Your task to perform on an android device: Is it going to rain this weekend? Image 0: 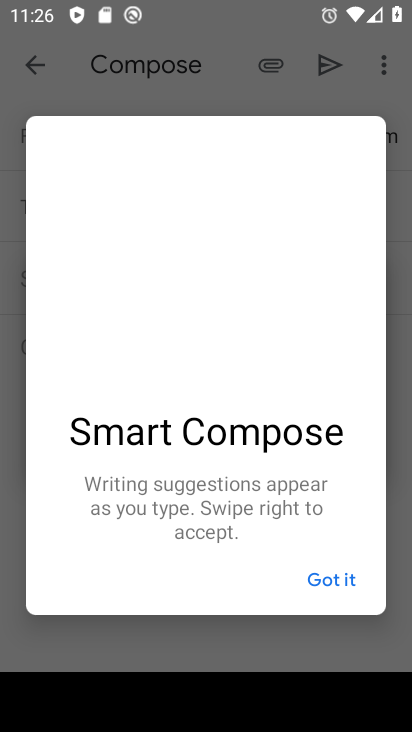
Step 0: press home button
Your task to perform on an android device: Is it going to rain this weekend? Image 1: 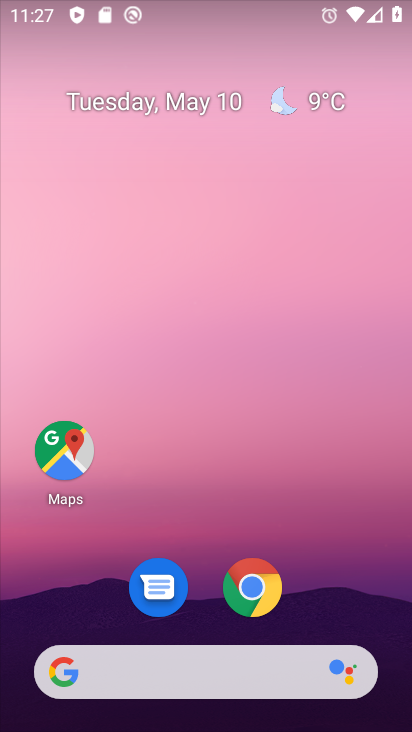
Step 1: click (348, 625)
Your task to perform on an android device: Is it going to rain this weekend? Image 2: 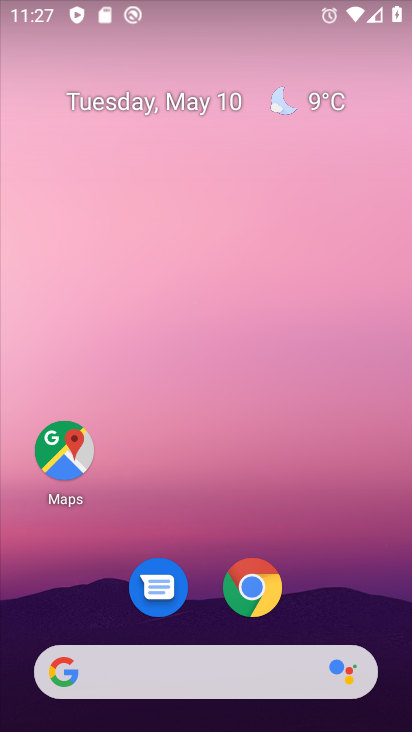
Step 2: click (321, 108)
Your task to perform on an android device: Is it going to rain this weekend? Image 3: 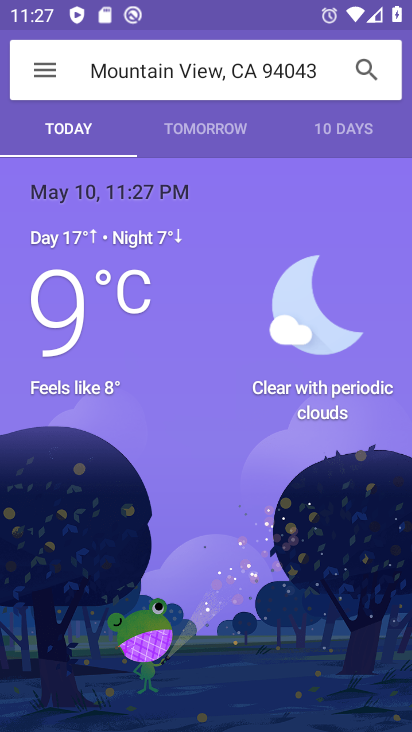
Step 3: click (346, 127)
Your task to perform on an android device: Is it going to rain this weekend? Image 4: 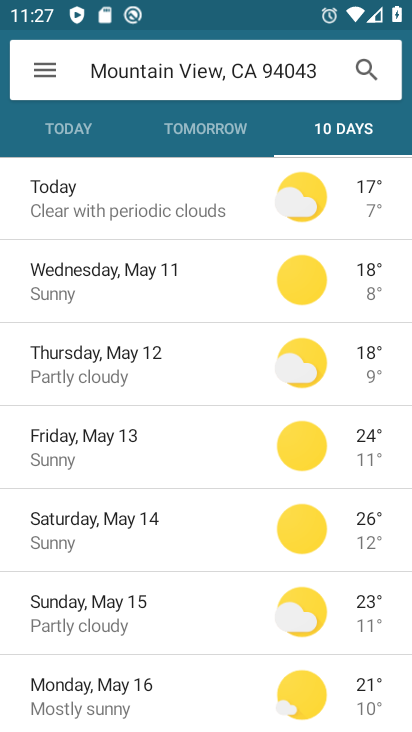
Step 4: task complete